Your task to perform on an android device: Open settings Image 0: 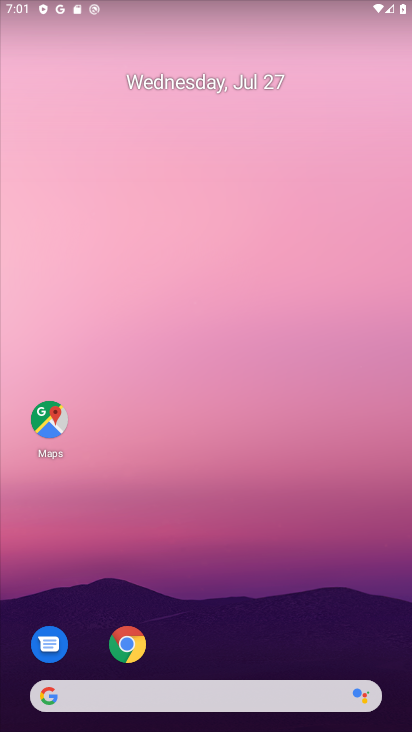
Step 0: drag from (280, 562) to (340, 196)
Your task to perform on an android device: Open settings Image 1: 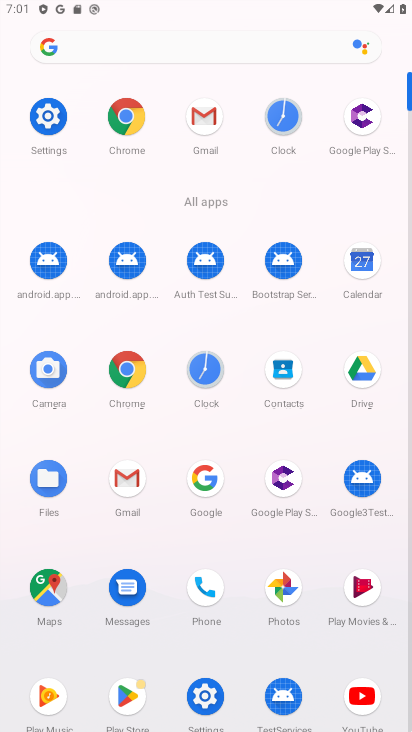
Step 1: click (204, 689)
Your task to perform on an android device: Open settings Image 2: 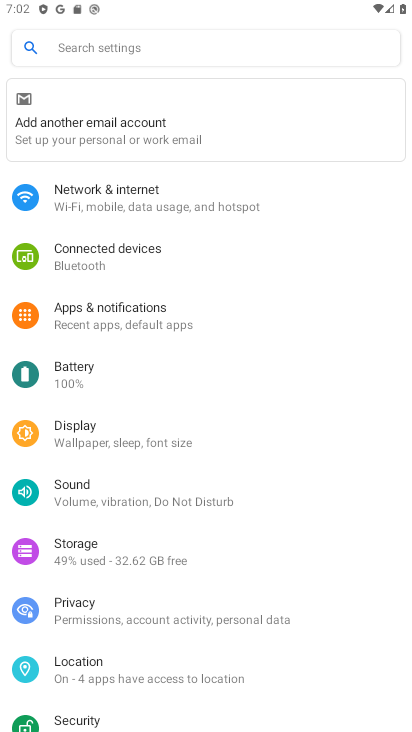
Step 2: task complete